Your task to perform on an android device: check android version Image 0: 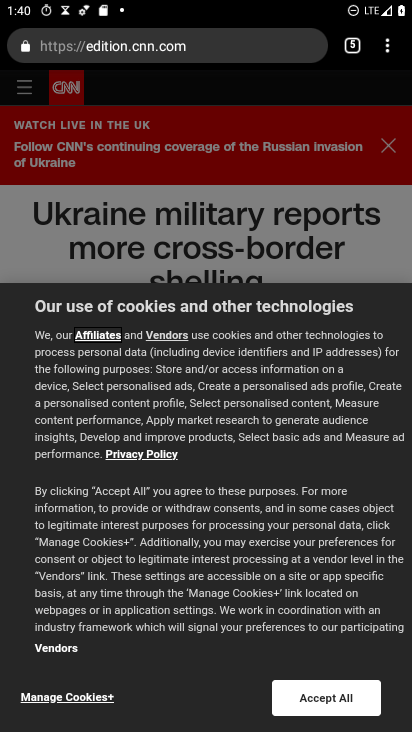
Step 0: press home button
Your task to perform on an android device: check android version Image 1: 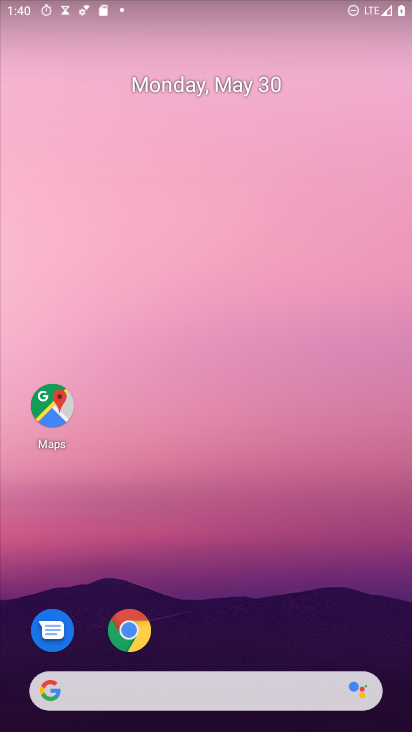
Step 1: drag from (309, 680) to (264, 102)
Your task to perform on an android device: check android version Image 2: 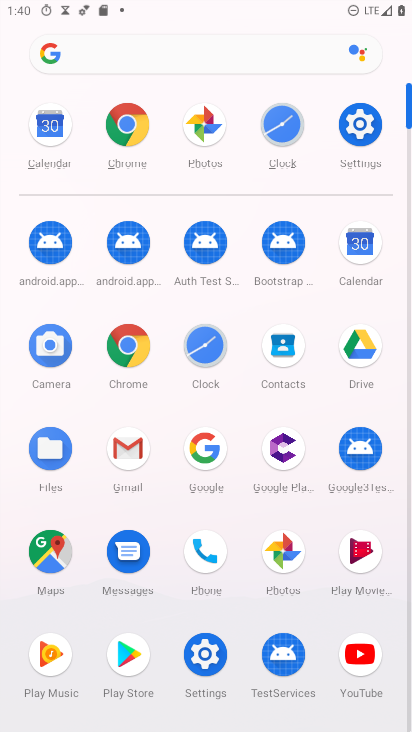
Step 2: click (339, 134)
Your task to perform on an android device: check android version Image 3: 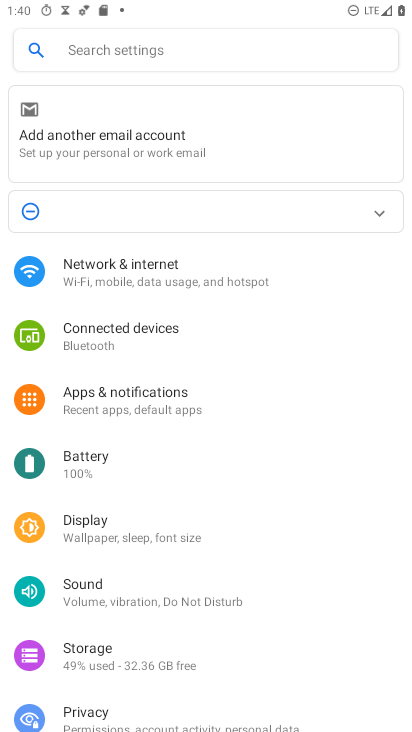
Step 3: click (113, 52)
Your task to perform on an android device: check android version Image 4: 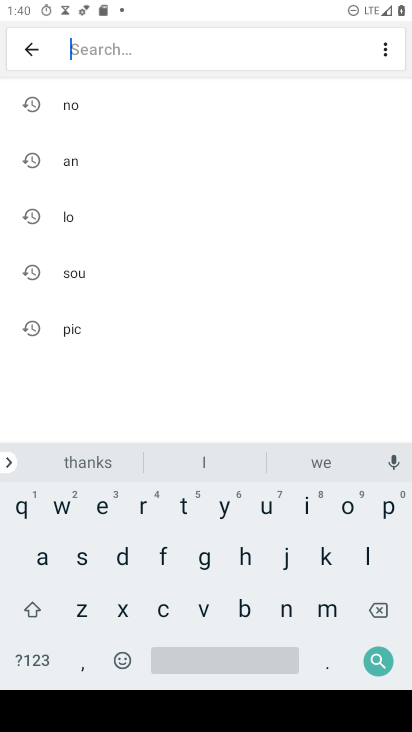
Step 4: click (90, 164)
Your task to perform on an android device: check android version Image 5: 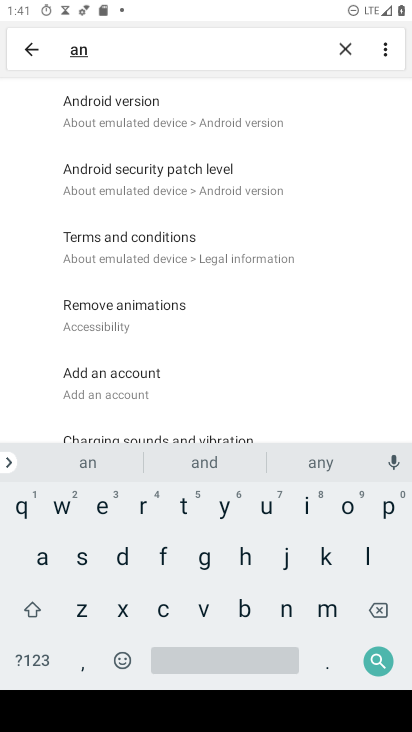
Step 5: click (154, 132)
Your task to perform on an android device: check android version Image 6: 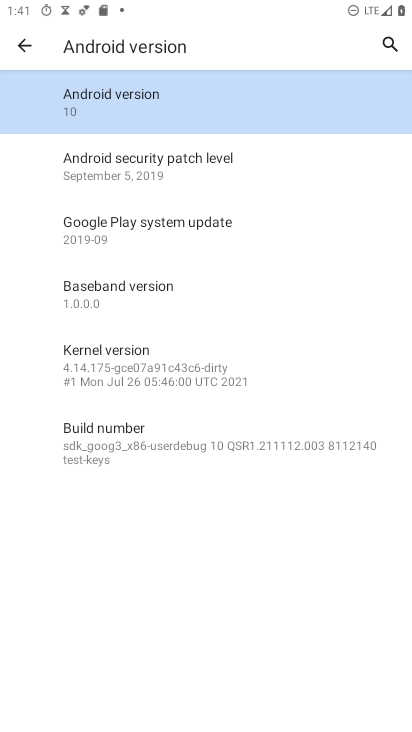
Step 6: click (153, 130)
Your task to perform on an android device: check android version Image 7: 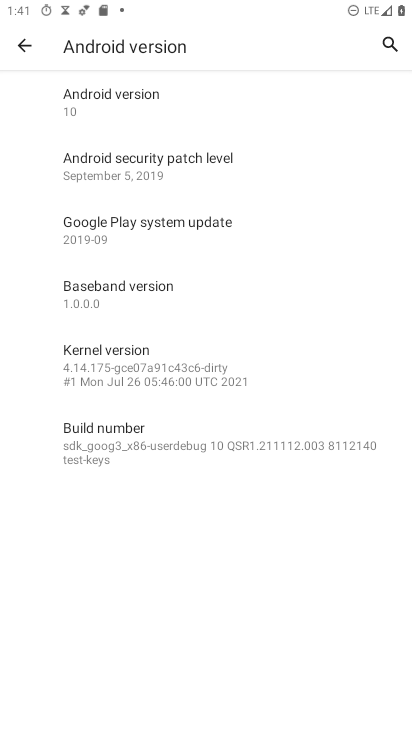
Step 7: click (157, 126)
Your task to perform on an android device: check android version Image 8: 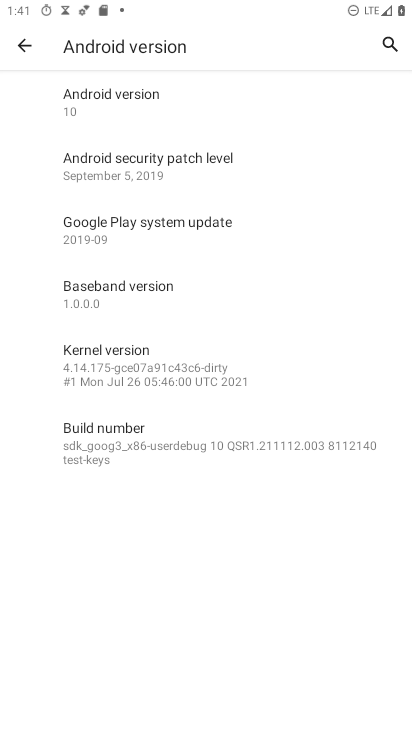
Step 8: task complete